Your task to perform on an android device: toggle notification dots Image 0: 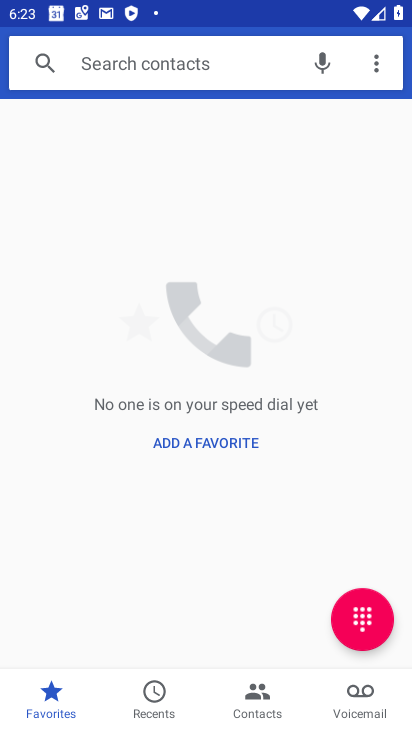
Step 0: press home button
Your task to perform on an android device: toggle notification dots Image 1: 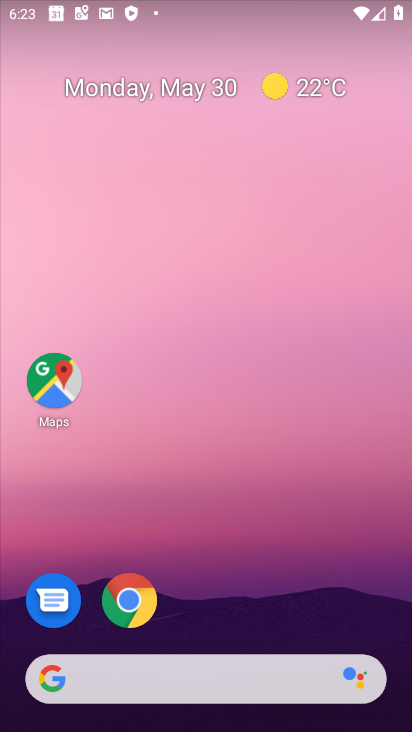
Step 1: drag from (261, 620) to (293, 214)
Your task to perform on an android device: toggle notification dots Image 2: 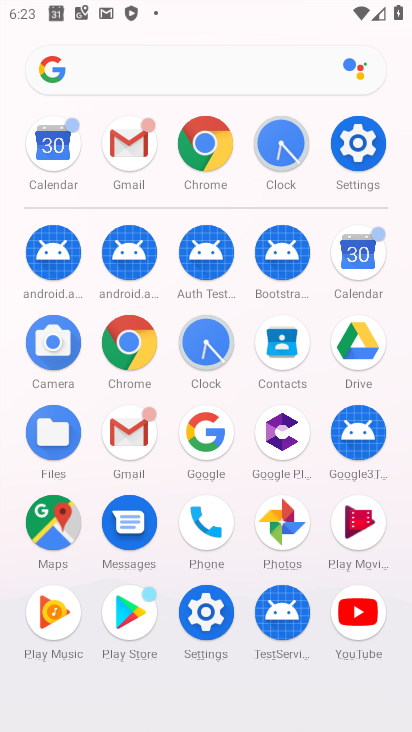
Step 2: click (348, 142)
Your task to perform on an android device: toggle notification dots Image 3: 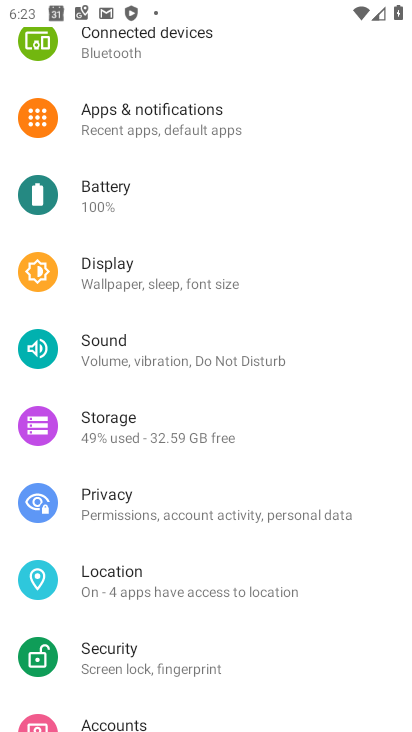
Step 3: click (140, 130)
Your task to perform on an android device: toggle notification dots Image 4: 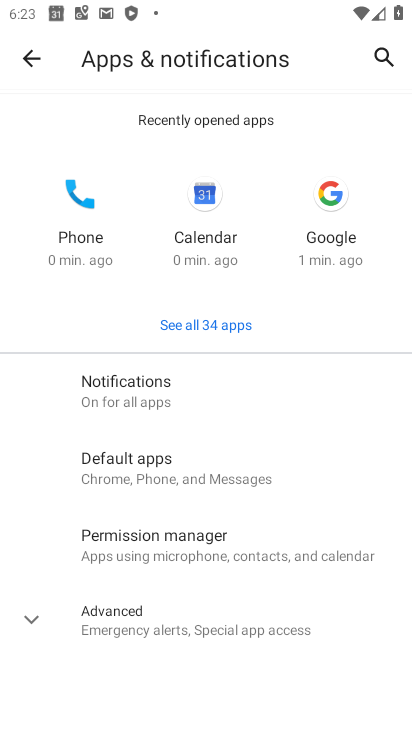
Step 4: click (138, 392)
Your task to perform on an android device: toggle notification dots Image 5: 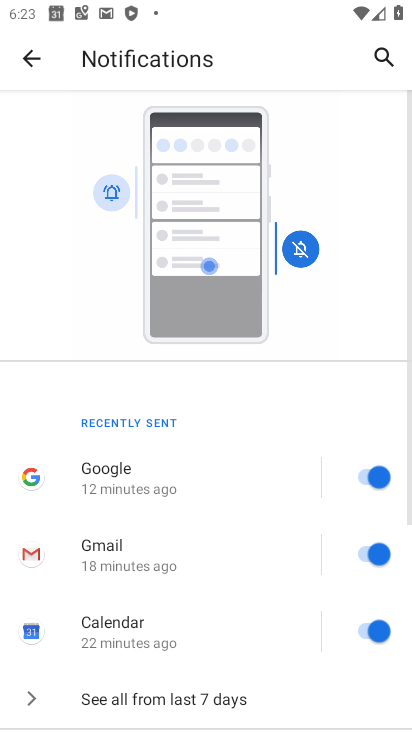
Step 5: drag from (269, 567) to (343, 158)
Your task to perform on an android device: toggle notification dots Image 6: 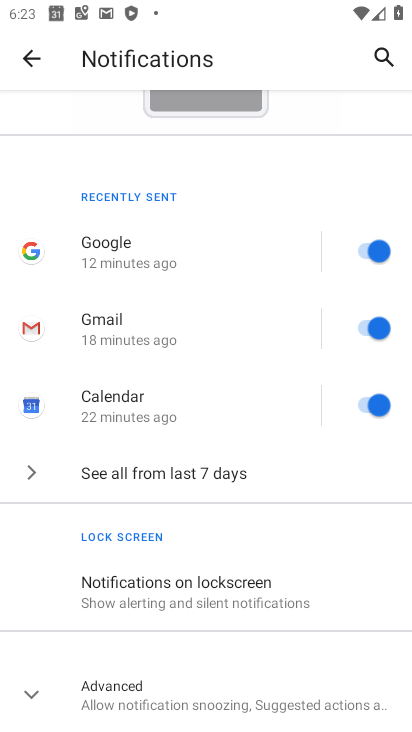
Step 6: drag from (165, 593) to (50, 31)
Your task to perform on an android device: toggle notification dots Image 7: 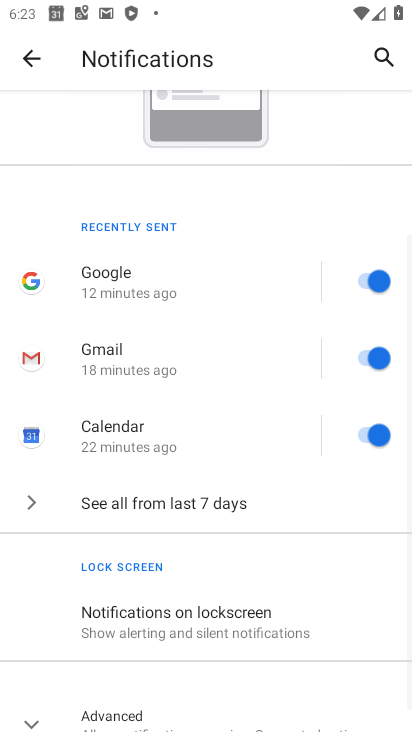
Step 7: click (141, 730)
Your task to perform on an android device: toggle notification dots Image 8: 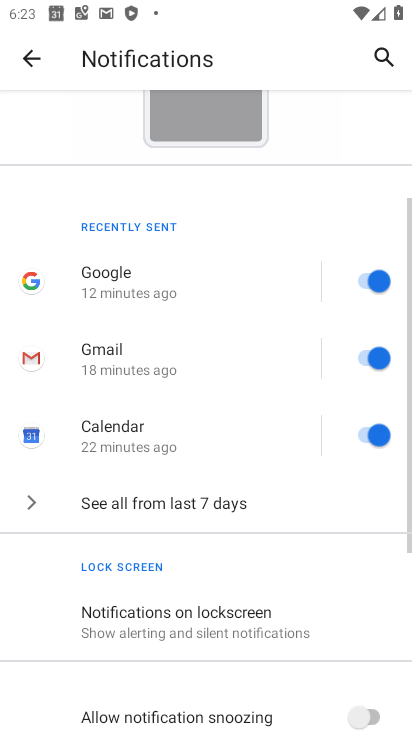
Step 8: drag from (168, 671) to (189, 274)
Your task to perform on an android device: toggle notification dots Image 9: 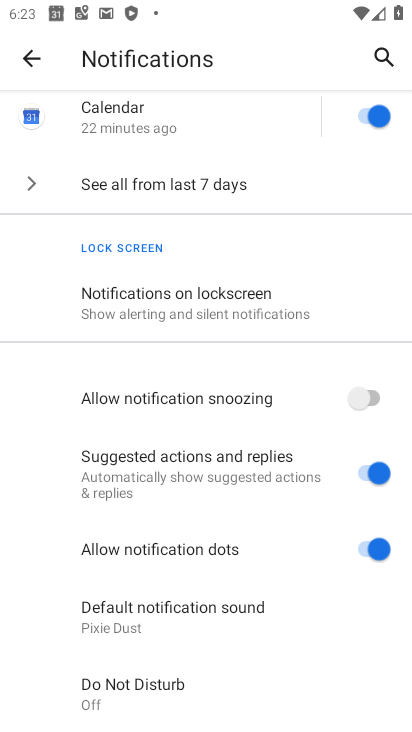
Step 9: click (384, 557)
Your task to perform on an android device: toggle notification dots Image 10: 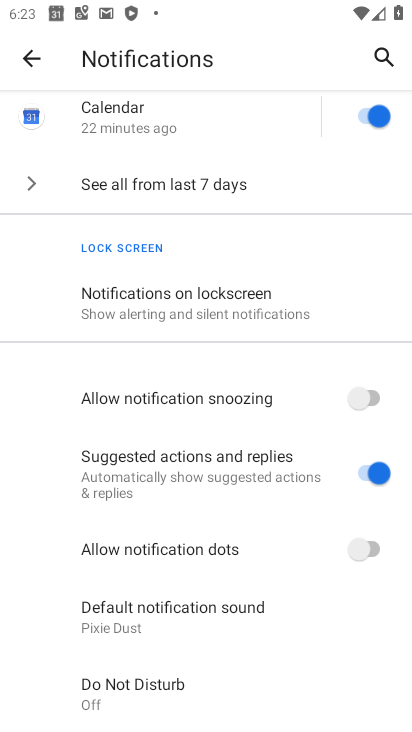
Step 10: task complete